Your task to perform on an android device: turn on sleep mode Image 0: 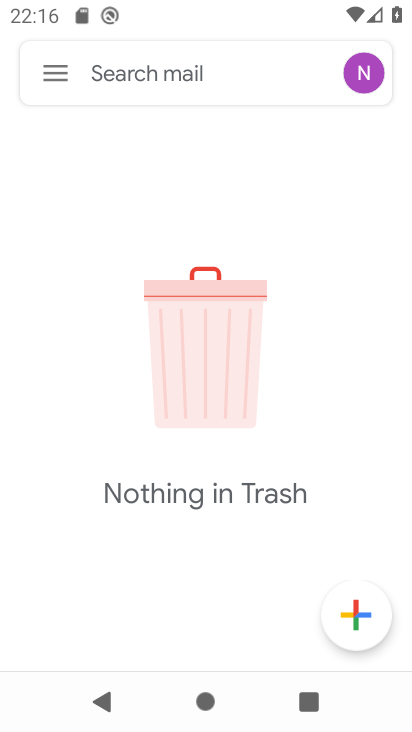
Step 0: press home button
Your task to perform on an android device: turn on sleep mode Image 1: 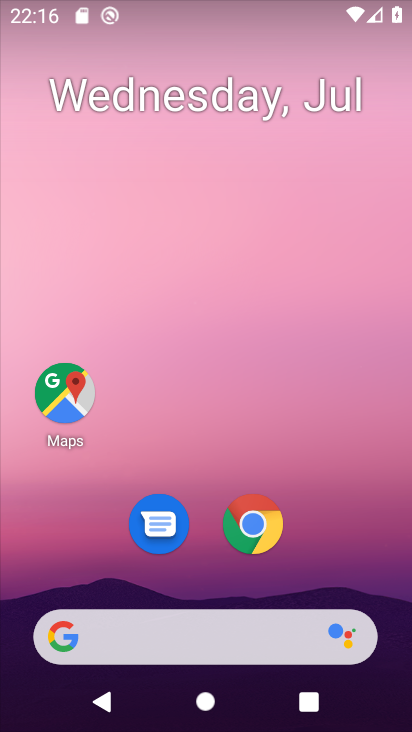
Step 1: drag from (323, 549) to (337, 88)
Your task to perform on an android device: turn on sleep mode Image 2: 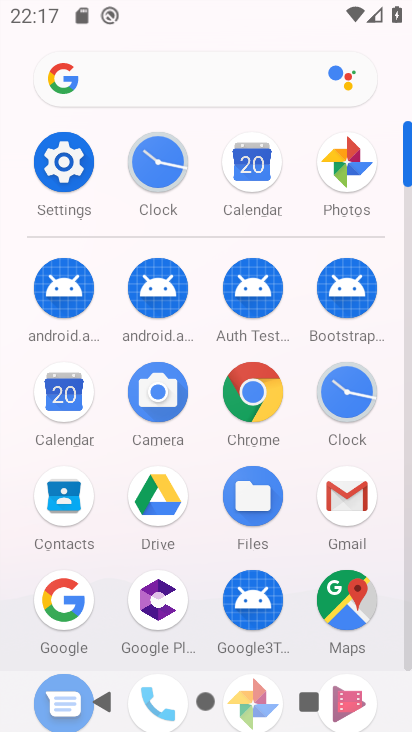
Step 2: click (74, 163)
Your task to perform on an android device: turn on sleep mode Image 3: 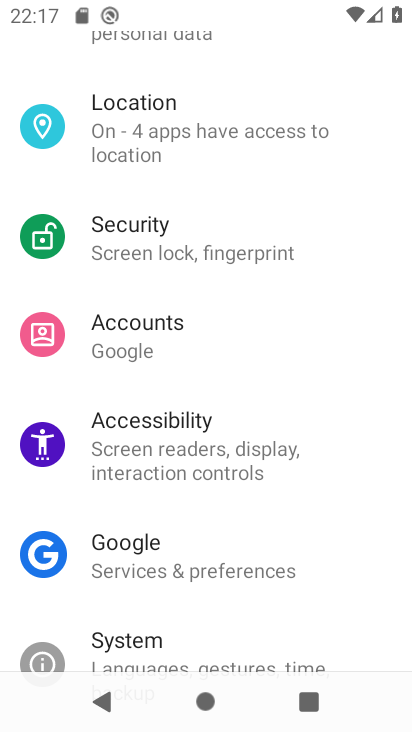
Step 3: drag from (240, 171) to (257, 591)
Your task to perform on an android device: turn on sleep mode Image 4: 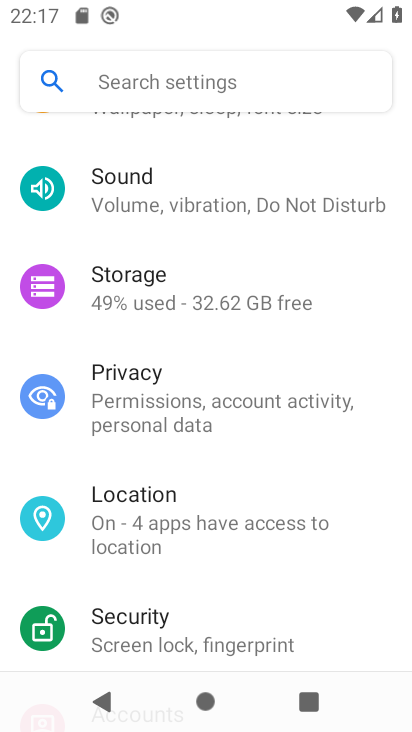
Step 4: drag from (269, 154) to (287, 604)
Your task to perform on an android device: turn on sleep mode Image 5: 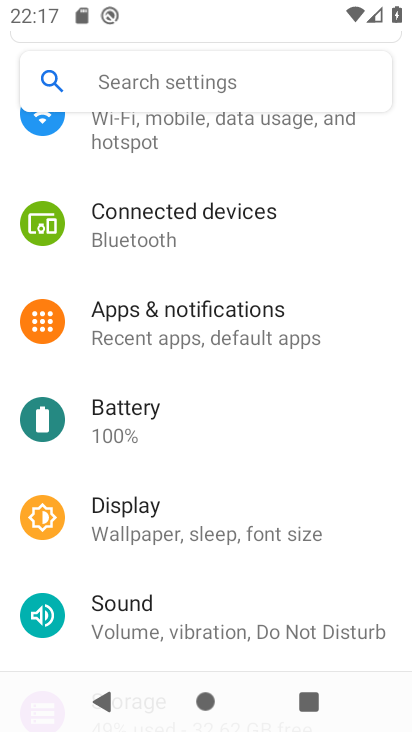
Step 5: drag from (243, 163) to (268, 557)
Your task to perform on an android device: turn on sleep mode Image 6: 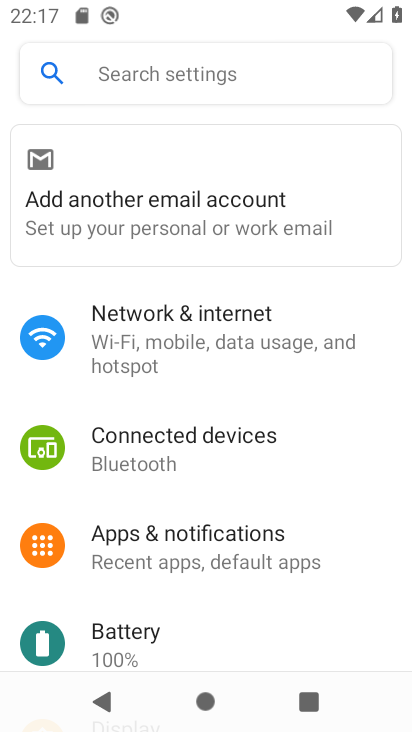
Step 6: drag from (232, 496) to (250, 141)
Your task to perform on an android device: turn on sleep mode Image 7: 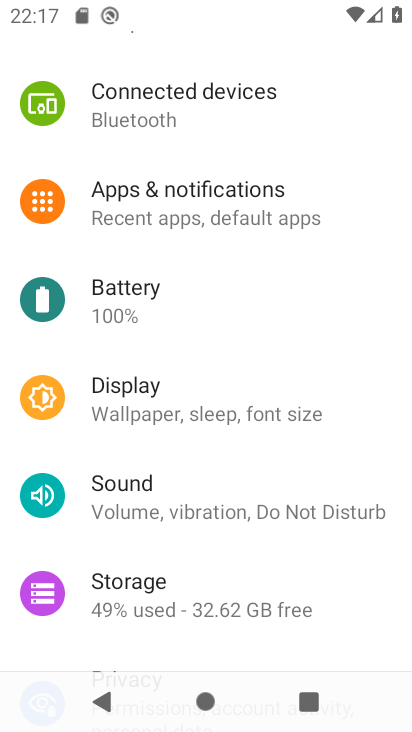
Step 7: click (202, 405)
Your task to perform on an android device: turn on sleep mode Image 8: 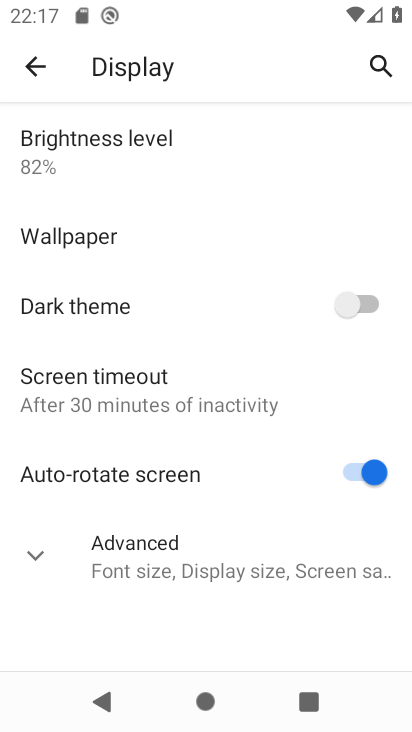
Step 8: click (40, 557)
Your task to perform on an android device: turn on sleep mode Image 9: 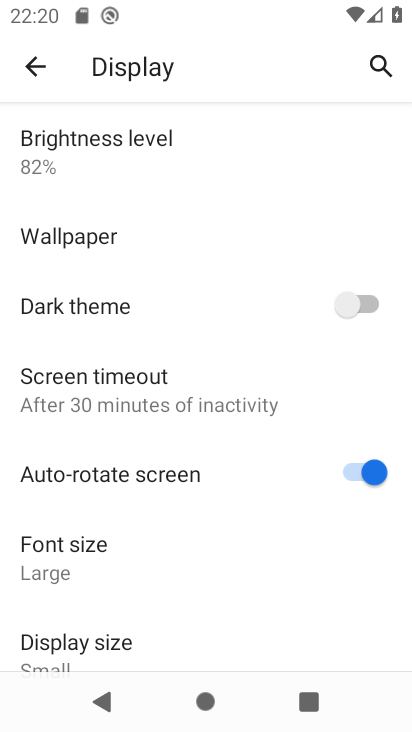
Step 9: task complete